Your task to perform on an android device: toggle javascript in the chrome app Image 0: 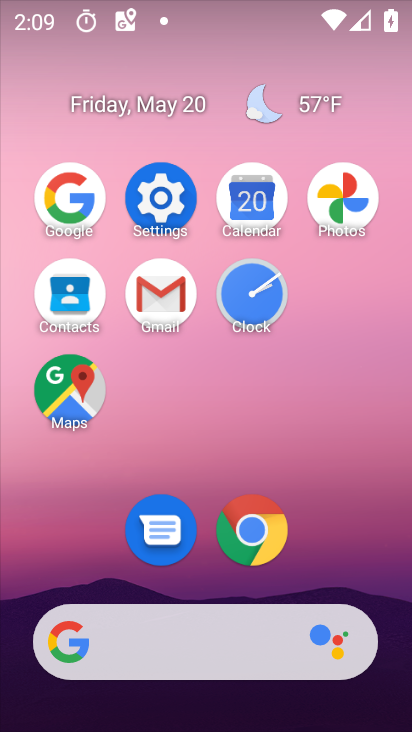
Step 0: click (248, 536)
Your task to perform on an android device: toggle javascript in the chrome app Image 1: 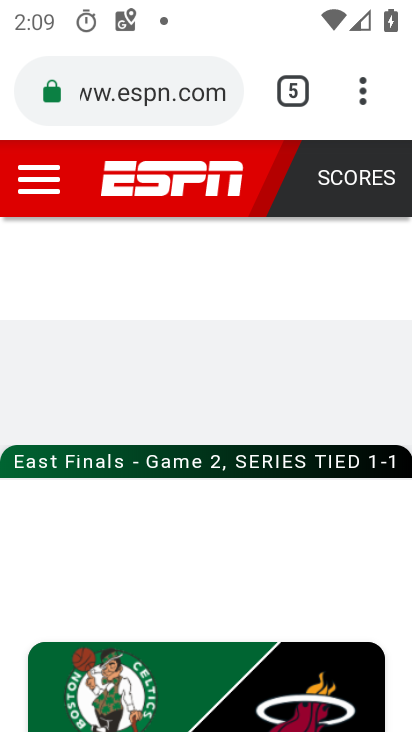
Step 1: click (362, 89)
Your task to perform on an android device: toggle javascript in the chrome app Image 2: 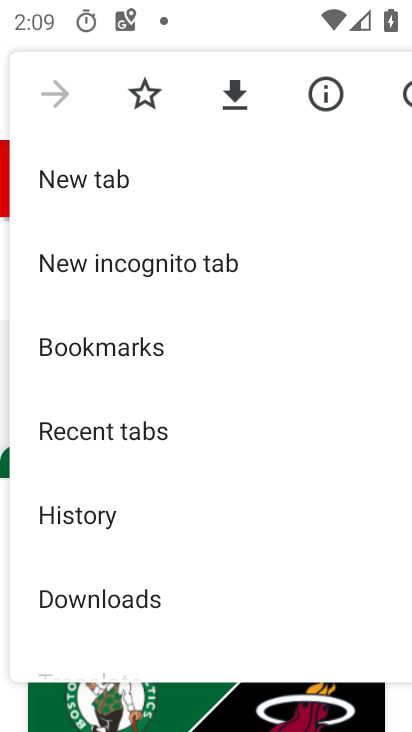
Step 2: drag from (202, 574) to (245, 179)
Your task to perform on an android device: toggle javascript in the chrome app Image 3: 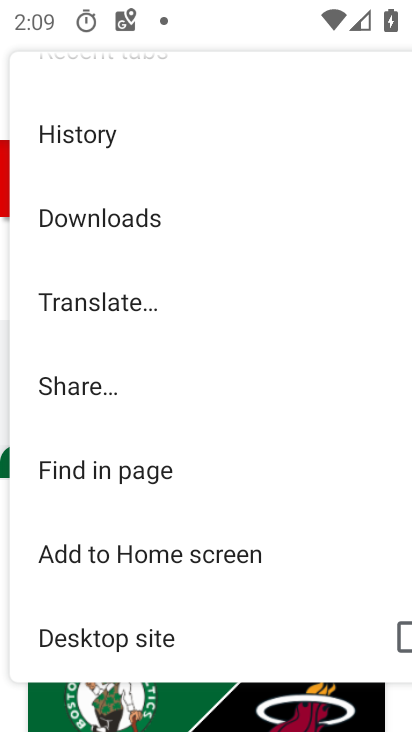
Step 3: drag from (203, 482) to (201, 192)
Your task to perform on an android device: toggle javascript in the chrome app Image 4: 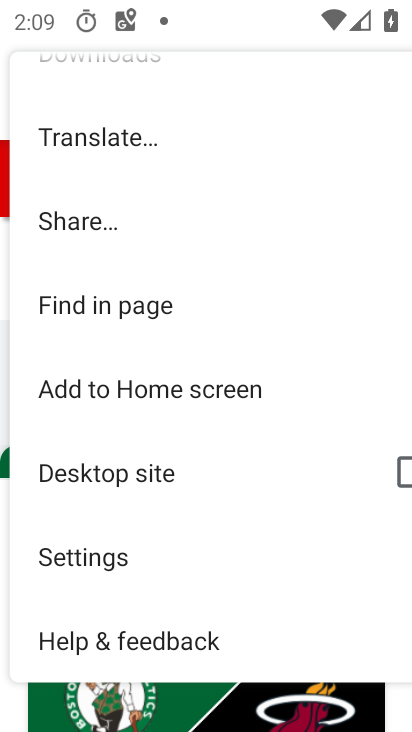
Step 4: click (148, 573)
Your task to perform on an android device: toggle javascript in the chrome app Image 5: 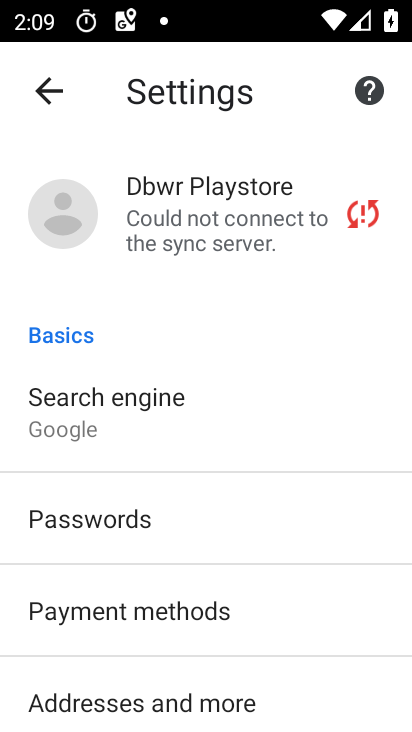
Step 5: drag from (152, 549) to (183, 247)
Your task to perform on an android device: toggle javascript in the chrome app Image 6: 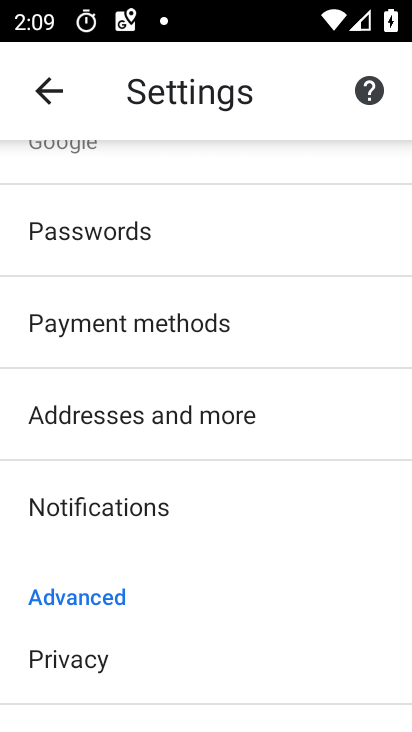
Step 6: drag from (265, 623) to (256, 231)
Your task to perform on an android device: toggle javascript in the chrome app Image 7: 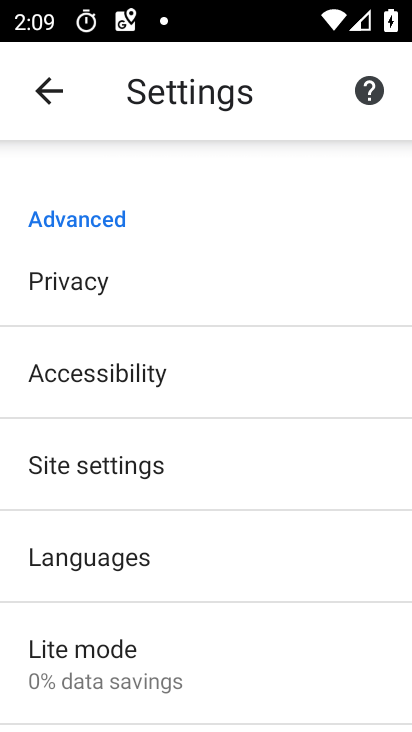
Step 7: click (204, 438)
Your task to perform on an android device: toggle javascript in the chrome app Image 8: 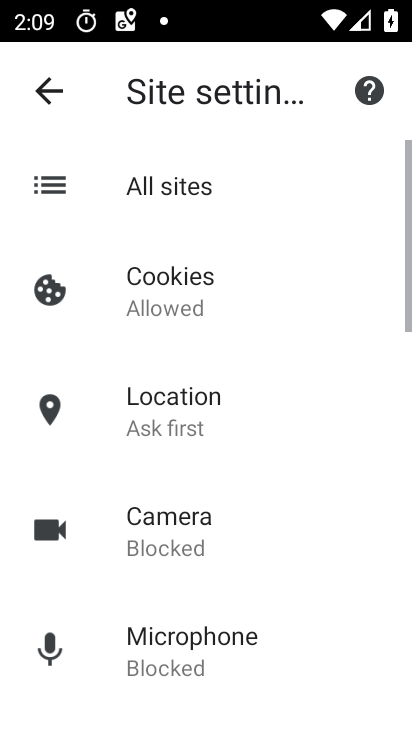
Step 8: drag from (204, 438) to (207, 159)
Your task to perform on an android device: toggle javascript in the chrome app Image 9: 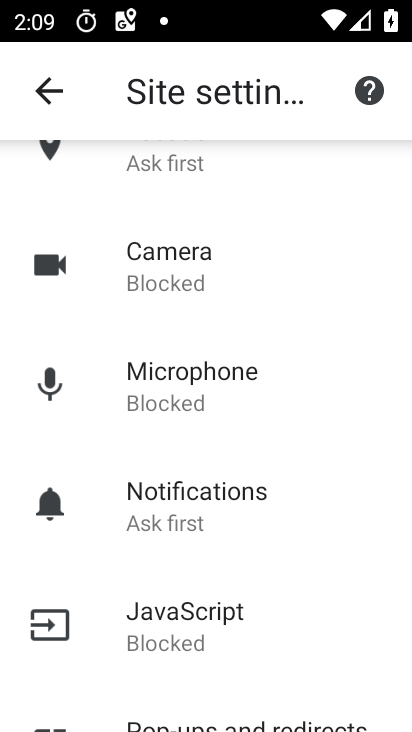
Step 9: click (239, 612)
Your task to perform on an android device: toggle javascript in the chrome app Image 10: 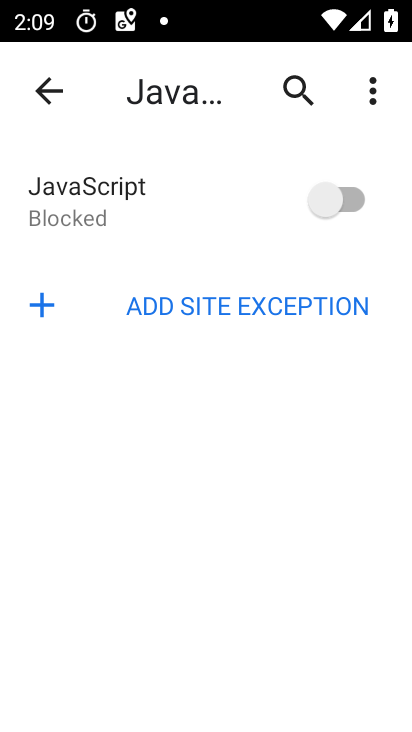
Step 10: click (332, 228)
Your task to perform on an android device: toggle javascript in the chrome app Image 11: 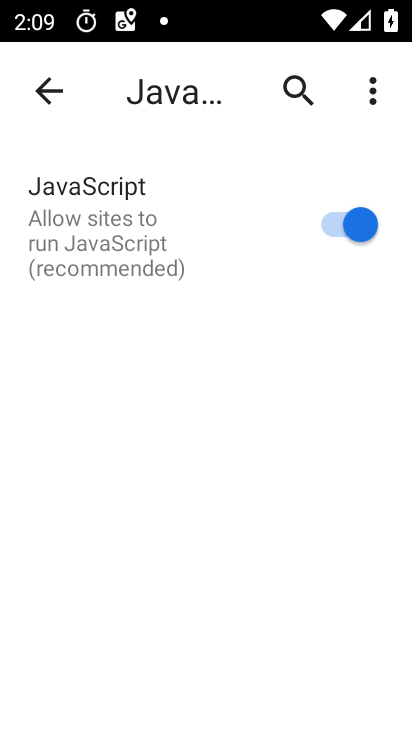
Step 11: task complete